Your task to perform on an android device: find which apps use the phone's location Image 0: 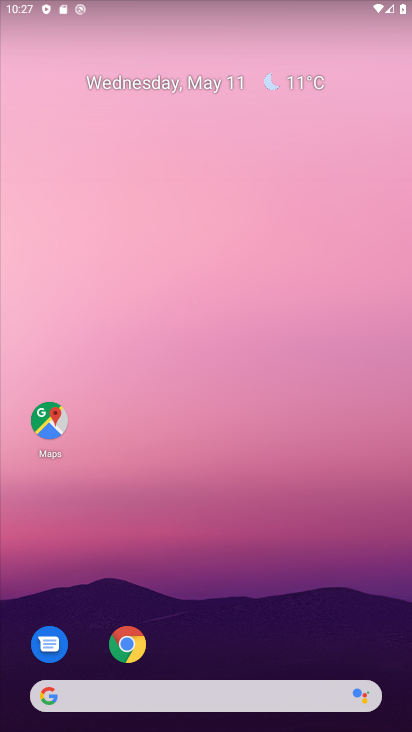
Step 0: drag from (357, 205) to (313, 0)
Your task to perform on an android device: find which apps use the phone's location Image 1: 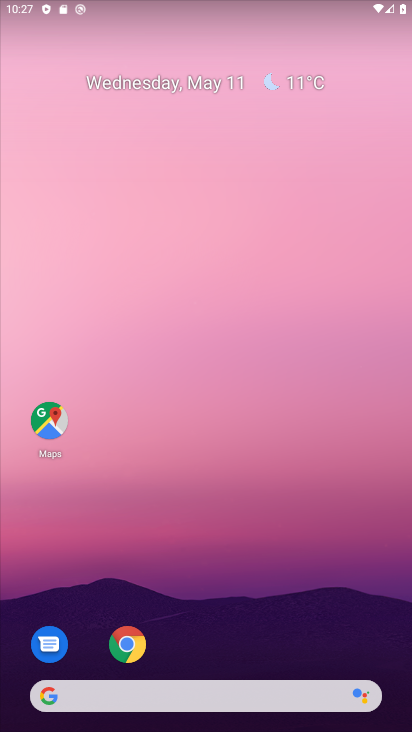
Step 1: drag from (290, 647) to (229, 18)
Your task to perform on an android device: find which apps use the phone's location Image 2: 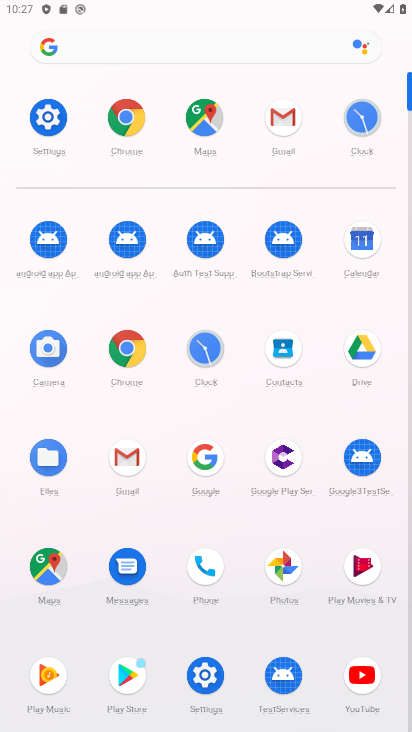
Step 2: click (39, 135)
Your task to perform on an android device: find which apps use the phone's location Image 3: 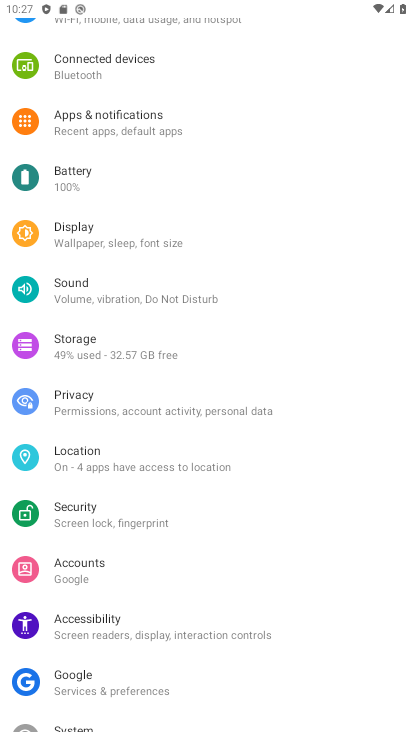
Step 3: click (49, 461)
Your task to perform on an android device: find which apps use the phone's location Image 4: 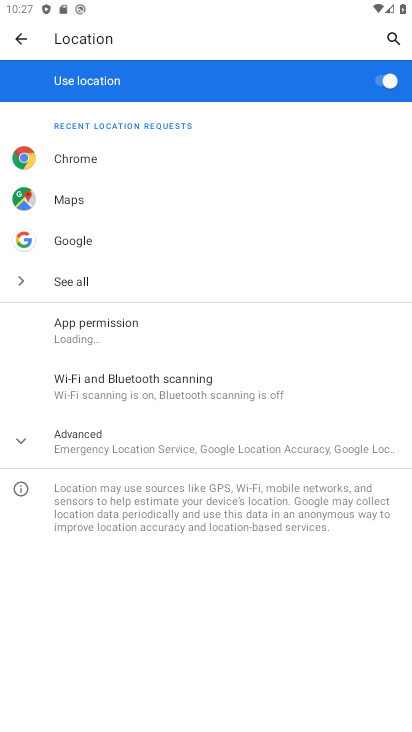
Step 4: click (84, 338)
Your task to perform on an android device: find which apps use the phone's location Image 5: 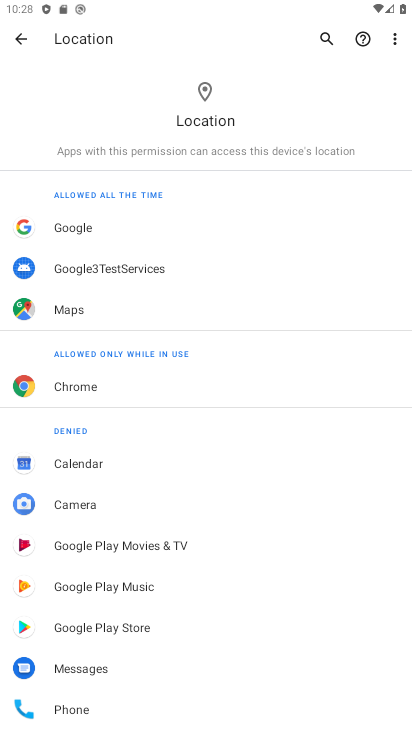
Step 5: task complete